Your task to perform on an android device: stop showing notifications on the lock screen Image 0: 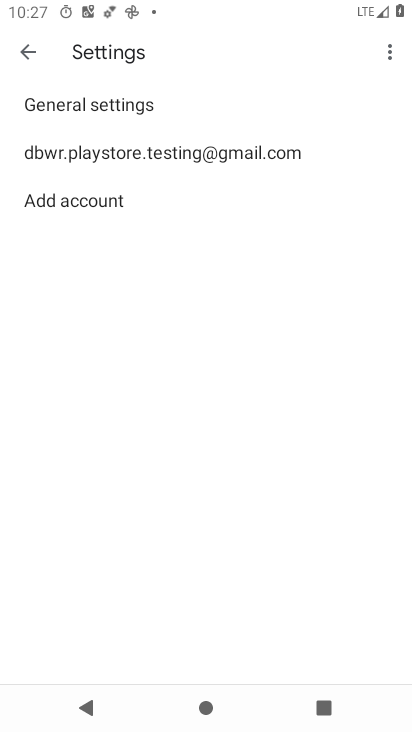
Step 0: press home button
Your task to perform on an android device: stop showing notifications on the lock screen Image 1: 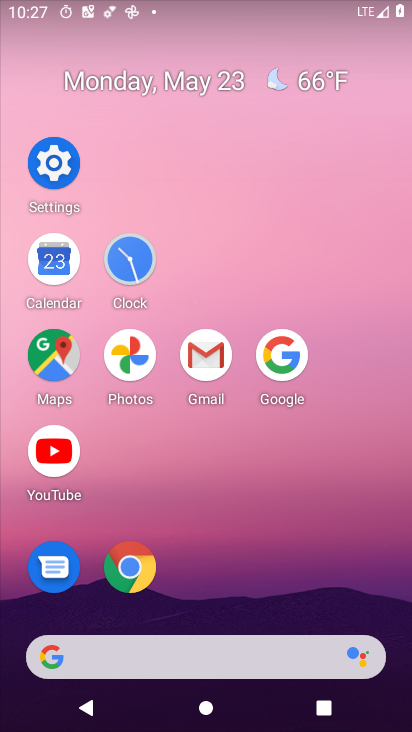
Step 1: click (67, 176)
Your task to perform on an android device: stop showing notifications on the lock screen Image 2: 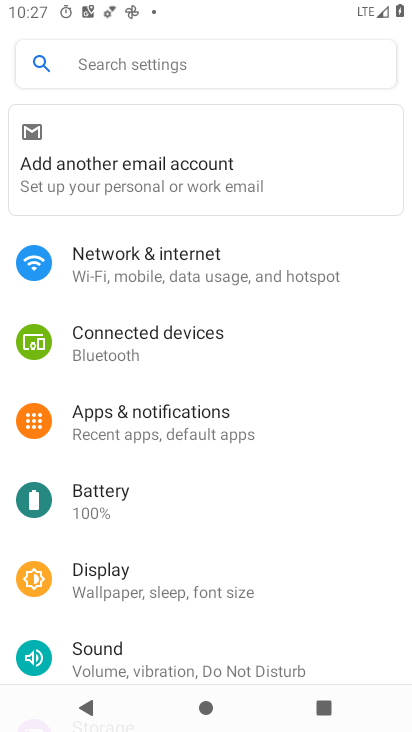
Step 2: click (212, 419)
Your task to perform on an android device: stop showing notifications on the lock screen Image 3: 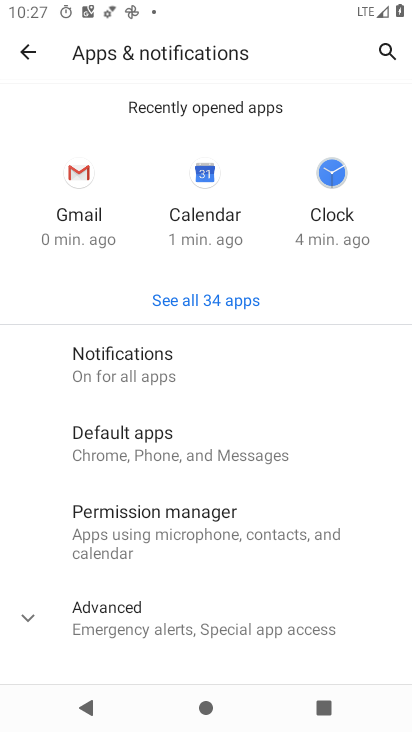
Step 3: click (134, 357)
Your task to perform on an android device: stop showing notifications on the lock screen Image 4: 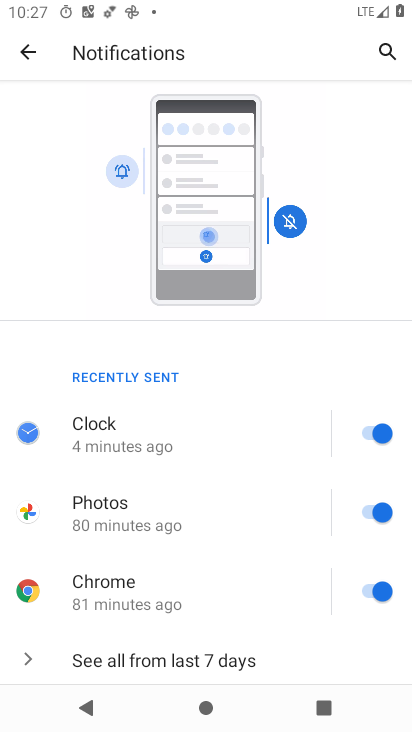
Step 4: drag from (165, 593) to (176, 186)
Your task to perform on an android device: stop showing notifications on the lock screen Image 5: 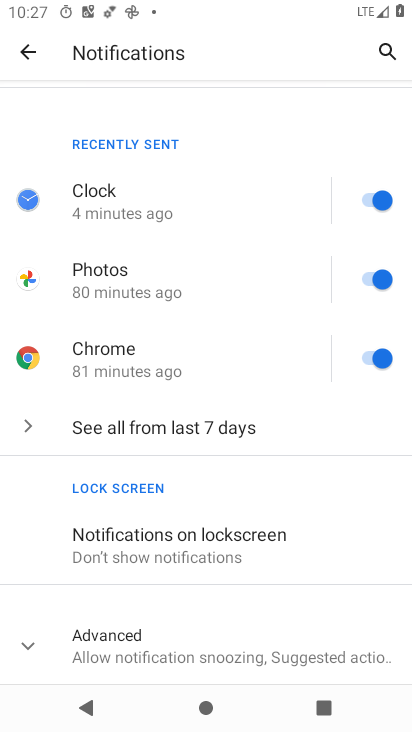
Step 5: click (173, 547)
Your task to perform on an android device: stop showing notifications on the lock screen Image 6: 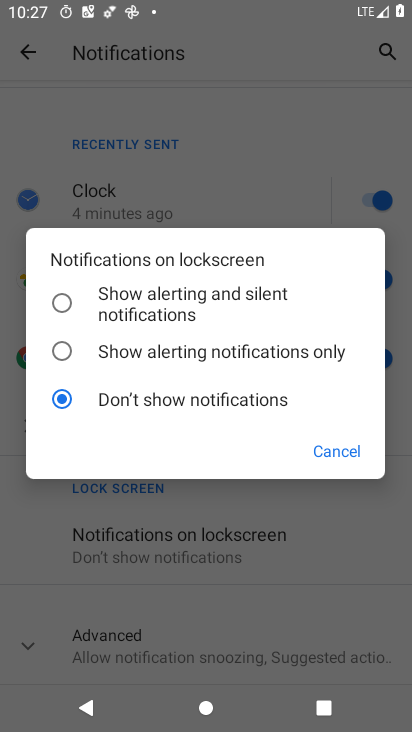
Step 6: task complete